Your task to perform on an android device: Check the weather Image 0: 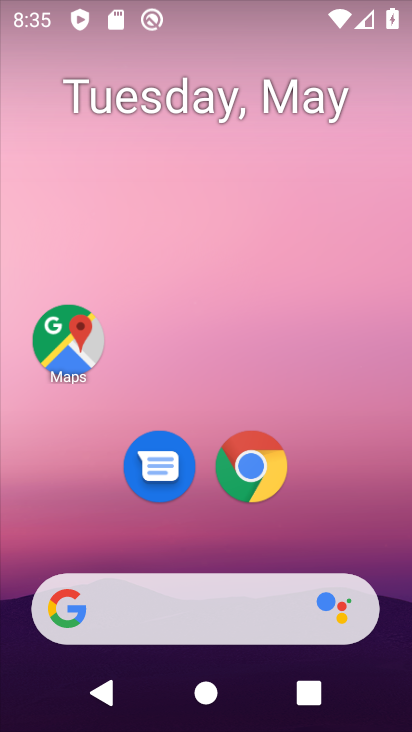
Step 0: drag from (30, 220) to (382, 245)
Your task to perform on an android device: Check the weather Image 1: 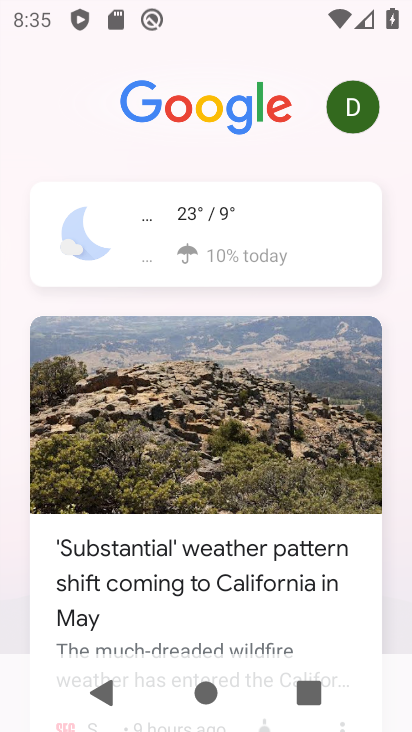
Step 1: click (258, 199)
Your task to perform on an android device: Check the weather Image 2: 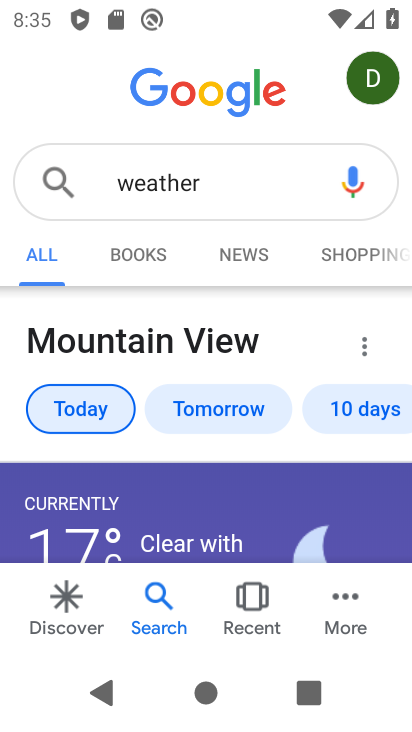
Step 2: task complete